Your task to perform on an android device: Open Youtube and go to "Your channel" Image 0: 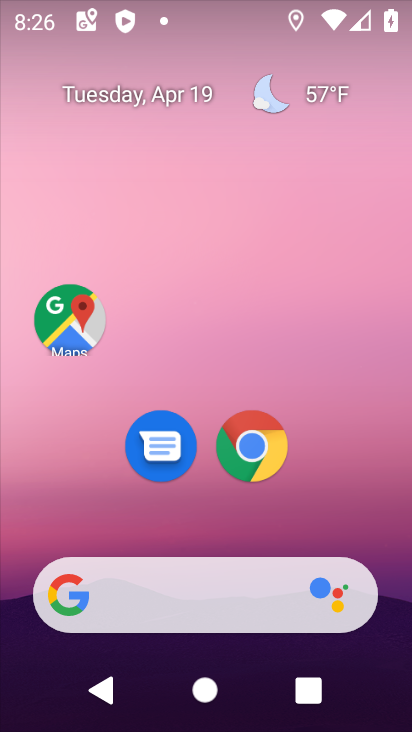
Step 0: drag from (344, 508) to (248, 61)
Your task to perform on an android device: Open Youtube and go to "Your channel" Image 1: 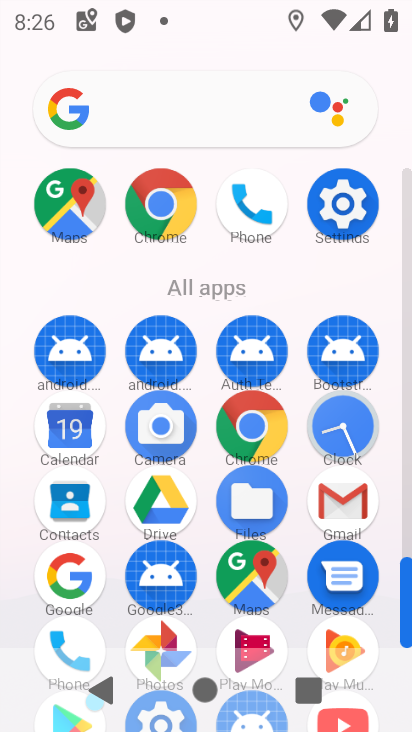
Step 1: drag from (281, 552) to (273, 244)
Your task to perform on an android device: Open Youtube and go to "Your channel" Image 2: 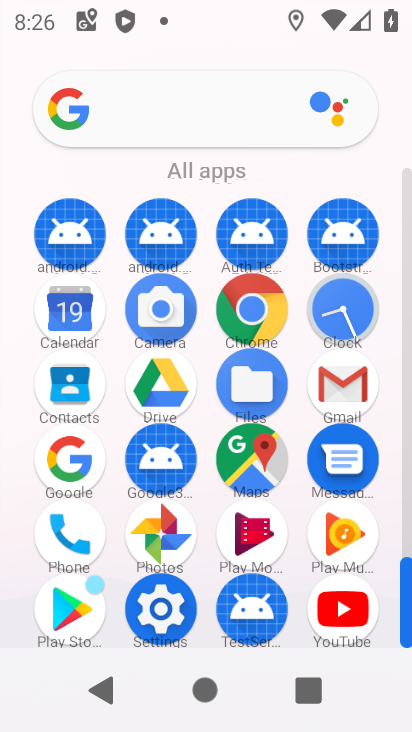
Step 2: click (342, 613)
Your task to perform on an android device: Open Youtube and go to "Your channel" Image 3: 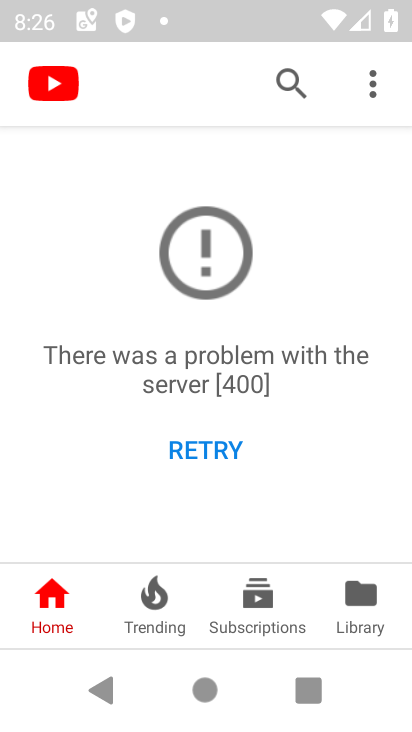
Step 3: click (372, 84)
Your task to perform on an android device: Open Youtube and go to "Your channel" Image 4: 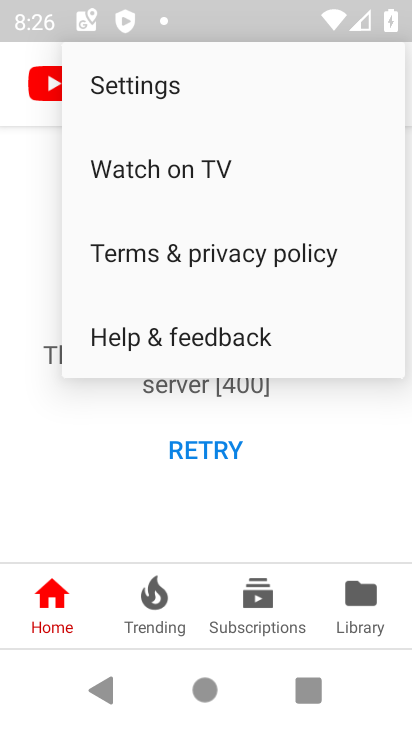
Step 4: click (358, 618)
Your task to perform on an android device: Open Youtube and go to "Your channel" Image 5: 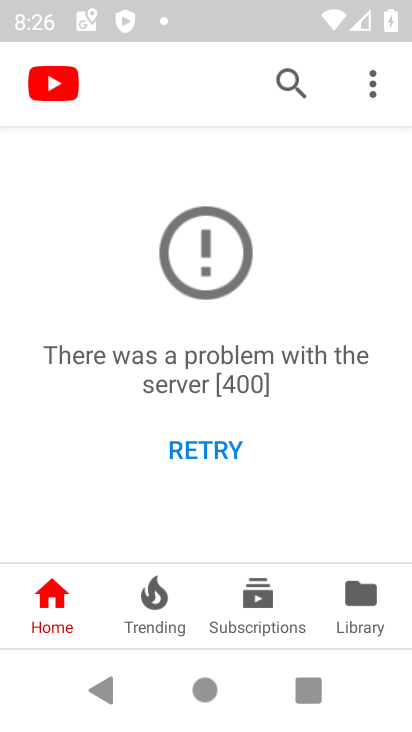
Step 5: click (362, 599)
Your task to perform on an android device: Open Youtube and go to "Your channel" Image 6: 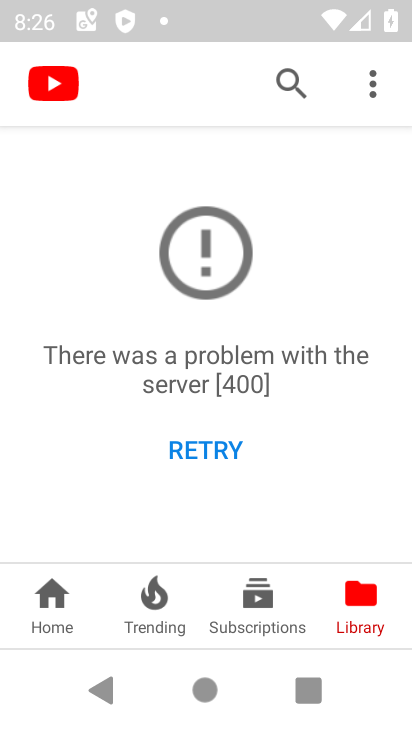
Step 6: click (209, 450)
Your task to perform on an android device: Open Youtube and go to "Your channel" Image 7: 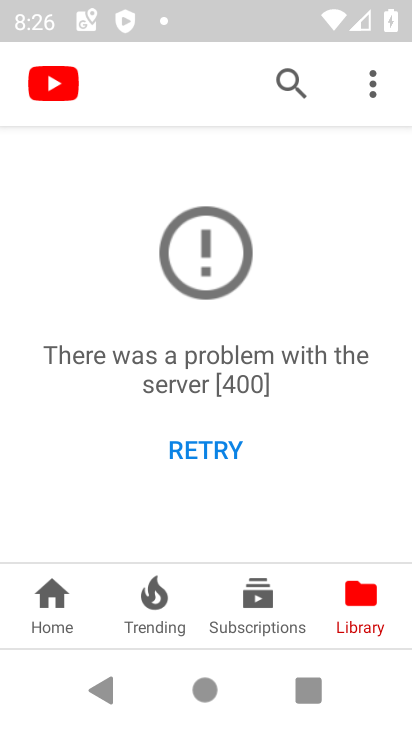
Step 7: click (207, 446)
Your task to perform on an android device: Open Youtube and go to "Your channel" Image 8: 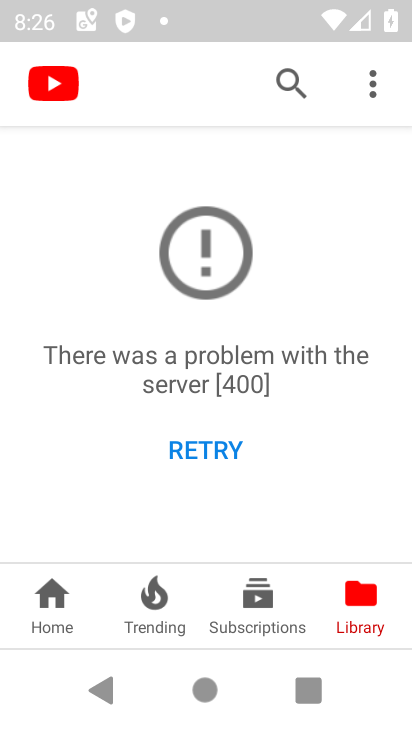
Step 8: click (207, 445)
Your task to perform on an android device: Open Youtube and go to "Your channel" Image 9: 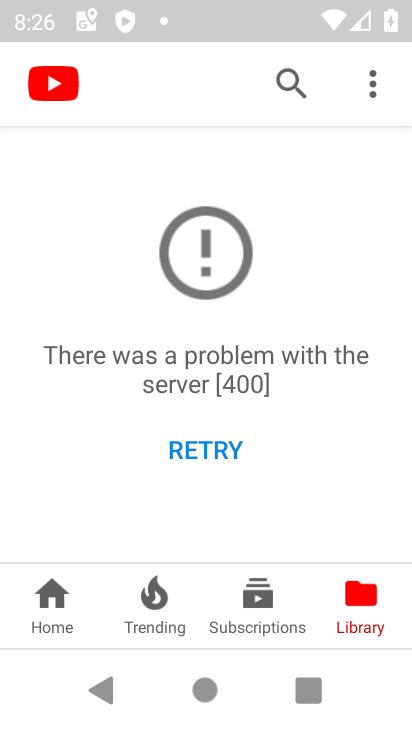
Step 9: click (207, 445)
Your task to perform on an android device: Open Youtube and go to "Your channel" Image 10: 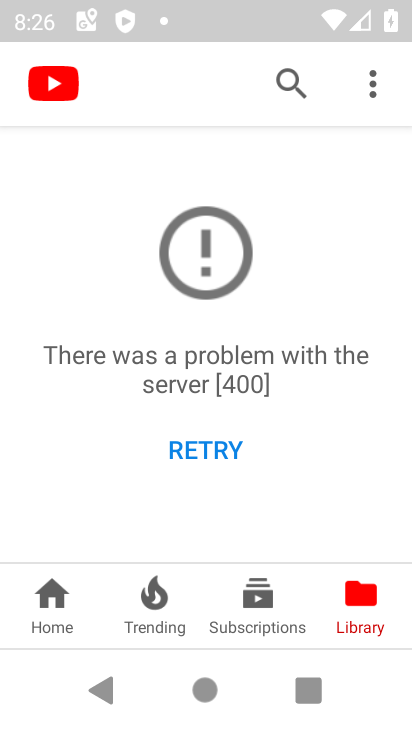
Step 10: click (209, 448)
Your task to perform on an android device: Open Youtube and go to "Your channel" Image 11: 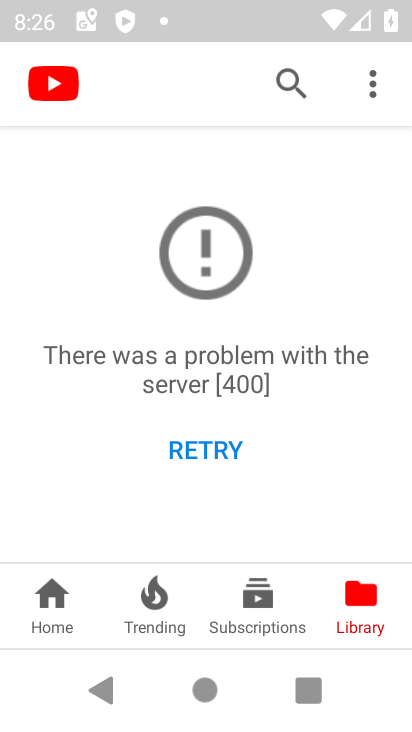
Step 11: click (209, 448)
Your task to perform on an android device: Open Youtube and go to "Your channel" Image 12: 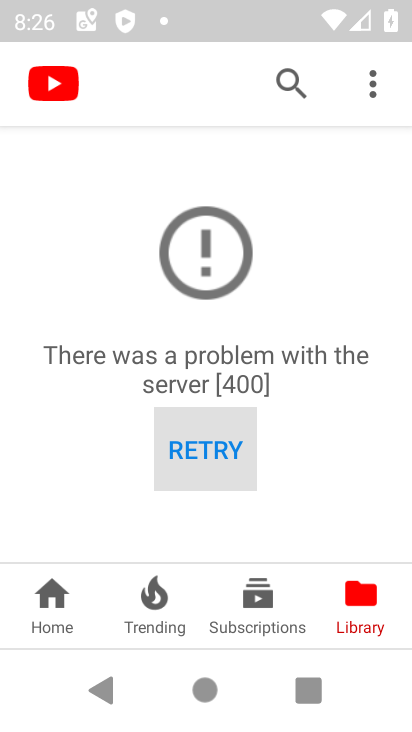
Step 12: click (209, 448)
Your task to perform on an android device: Open Youtube and go to "Your channel" Image 13: 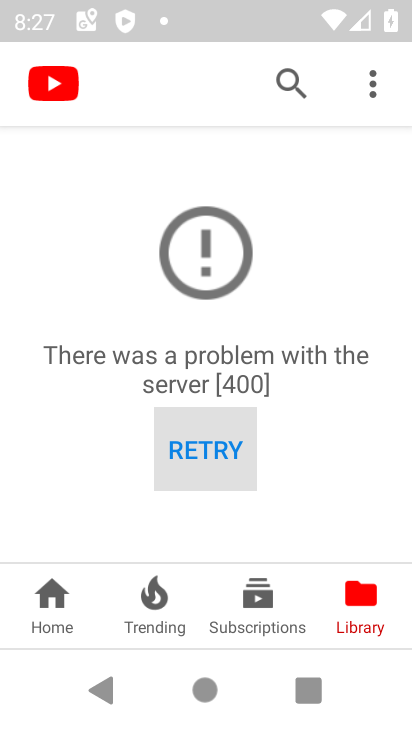
Step 13: click (209, 448)
Your task to perform on an android device: Open Youtube and go to "Your channel" Image 14: 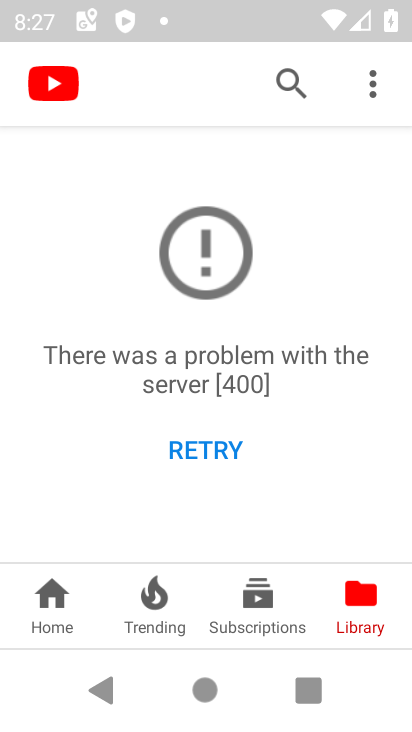
Step 14: task complete